Your task to perform on an android device: turn off notifications in google photos Image 0: 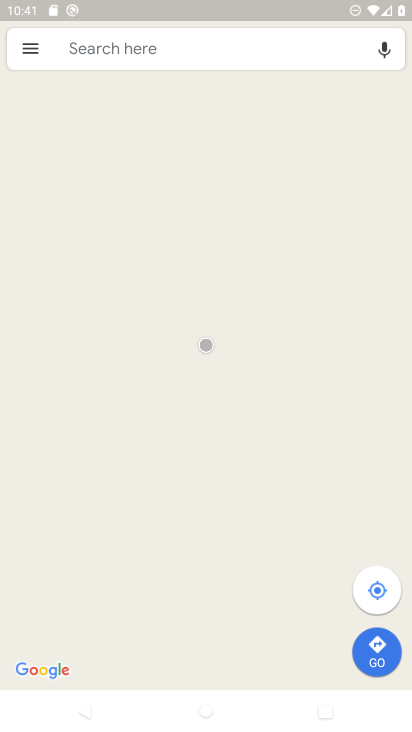
Step 0: press home button
Your task to perform on an android device: turn off notifications in google photos Image 1: 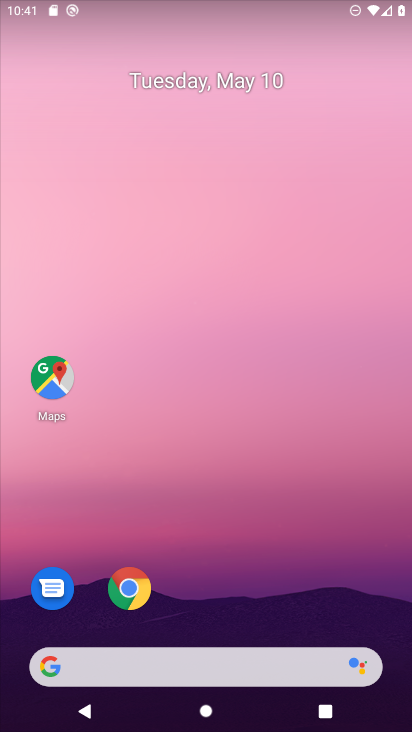
Step 1: drag from (182, 617) to (171, 163)
Your task to perform on an android device: turn off notifications in google photos Image 2: 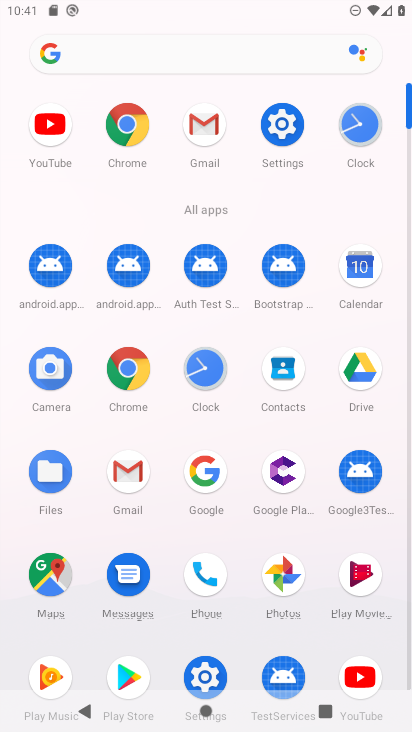
Step 2: click (276, 584)
Your task to perform on an android device: turn off notifications in google photos Image 3: 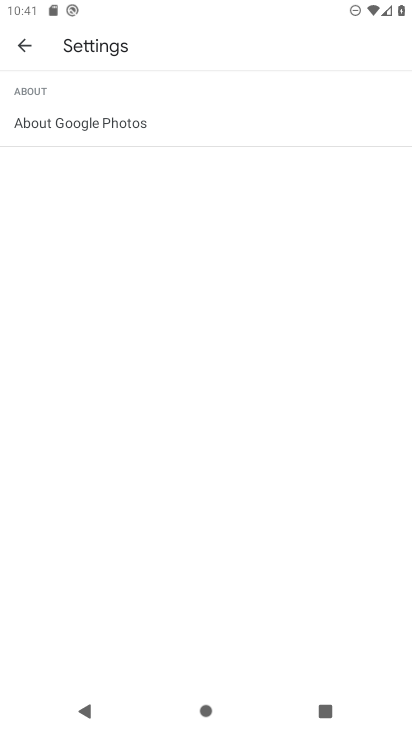
Step 3: click (28, 45)
Your task to perform on an android device: turn off notifications in google photos Image 4: 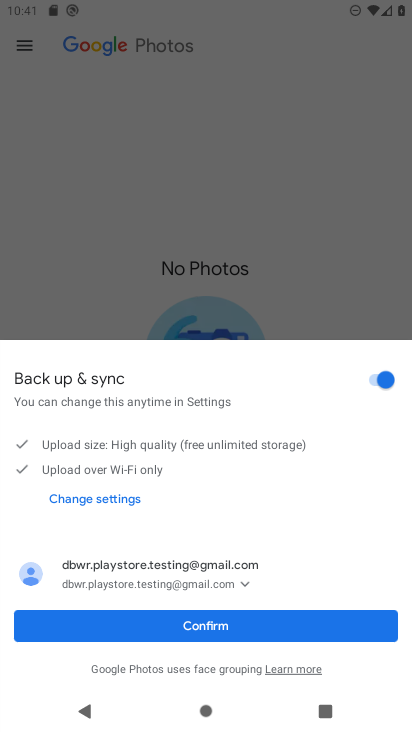
Step 4: click (227, 623)
Your task to perform on an android device: turn off notifications in google photos Image 5: 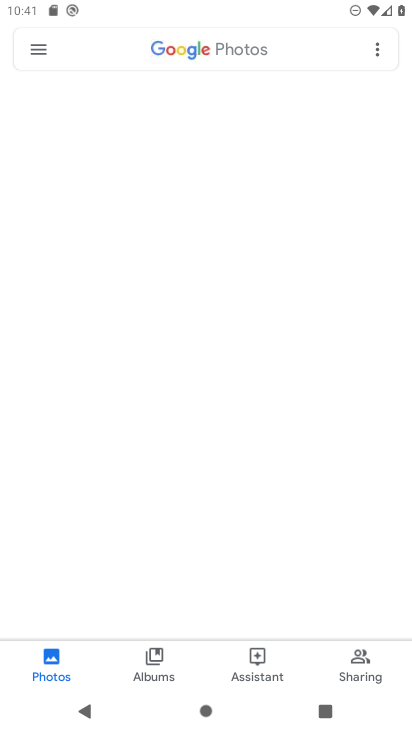
Step 5: click (36, 48)
Your task to perform on an android device: turn off notifications in google photos Image 6: 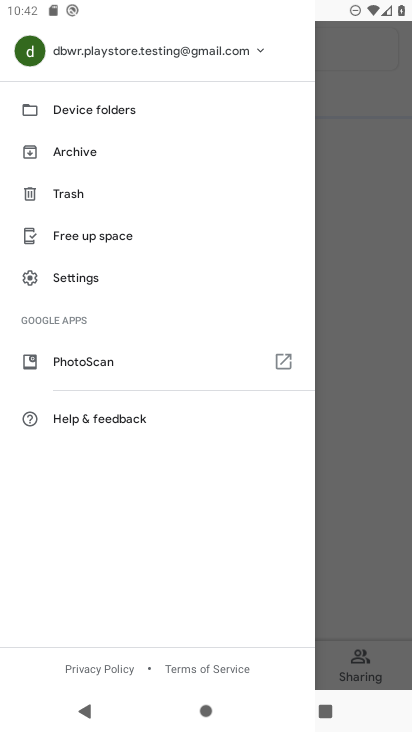
Step 6: click (81, 276)
Your task to perform on an android device: turn off notifications in google photos Image 7: 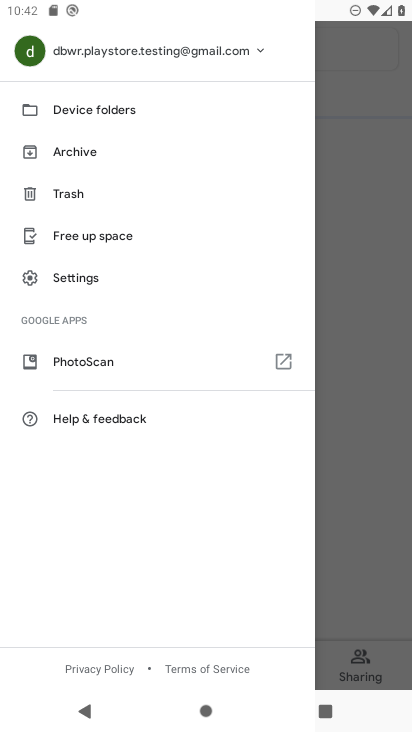
Step 7: click (52, 280)
Your task to perform on an android device: turn off notifications in google photos Image 8: 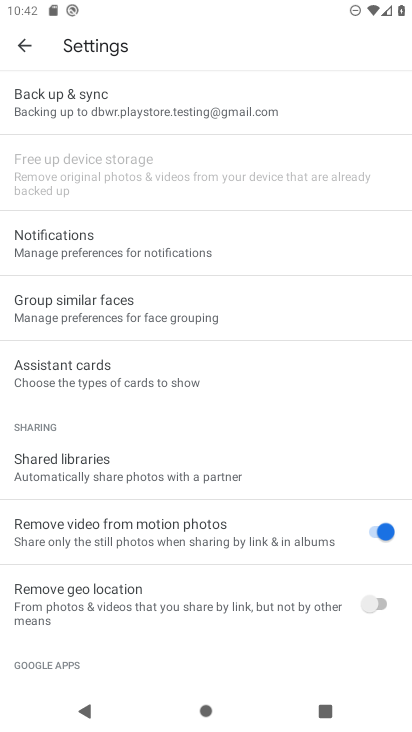
Step 8: drag from (173, 591) to (232, 205)
Your task to perform on an android device: turn off notifications in google photos Image 9: 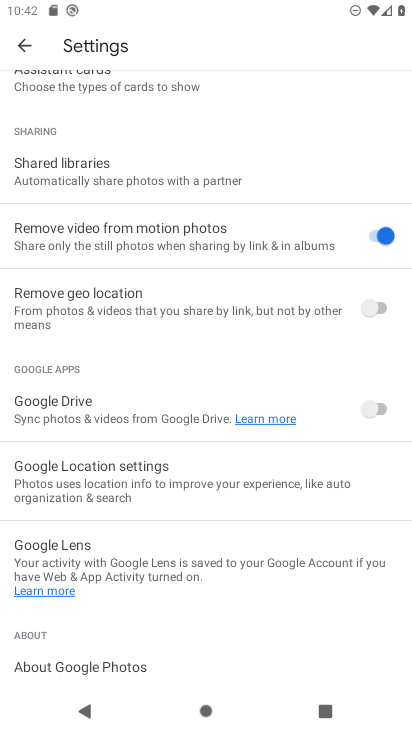
Step 9: drag from (227, 608) to (229, 230)
Your task to perform on an android device: turn off notifications in google photos Image 10: 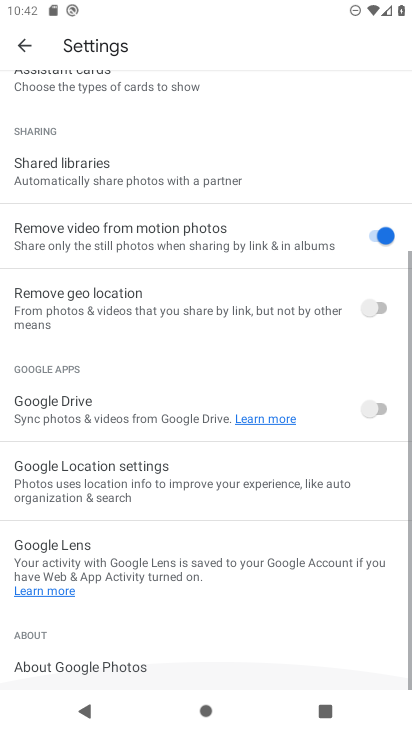
Step 10: drag from (239, 210) to (224, 603)
Your task to perform on an android device: turn off notifications in google photos Image 11: 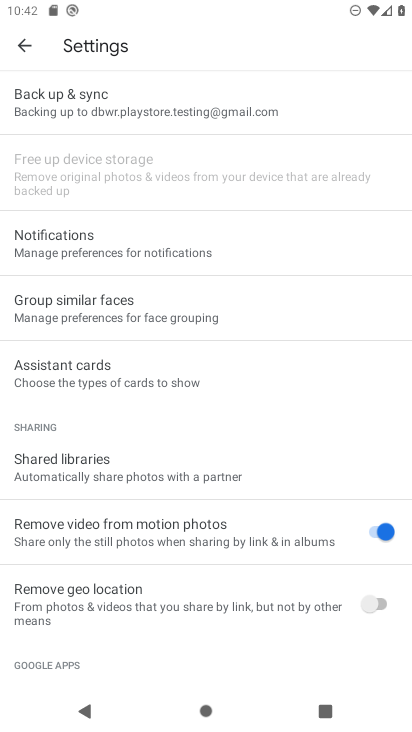
Step 11: drag from (252, 240) to (252, 399)
Your task to perform on an android device: turn off notifications in google photos Image 12: 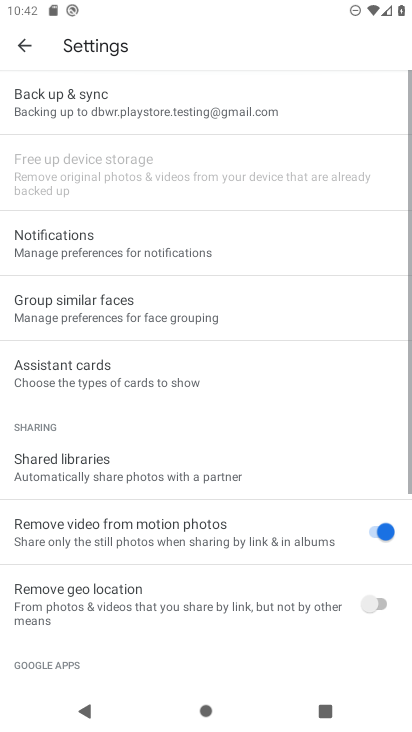
Step 12: click (144, 247)
Your task to perform on an android device: turn off notifications in google photos Image 13: 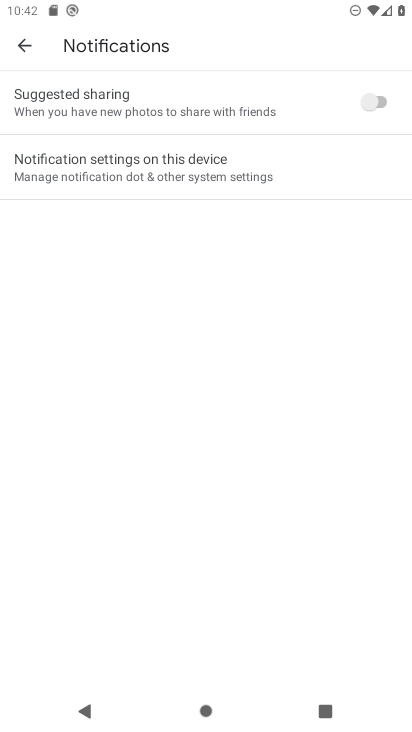
Step 13: click (117, 180)
Your task to perform on an android device: turn off notifications in google photos Image 14: 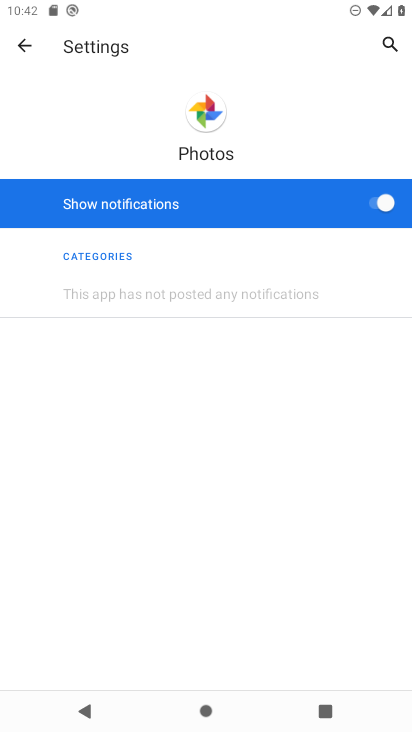
Step 14: click (375, 211)
Your task to perform on an android device: turn off notifications in google photos Image 15: 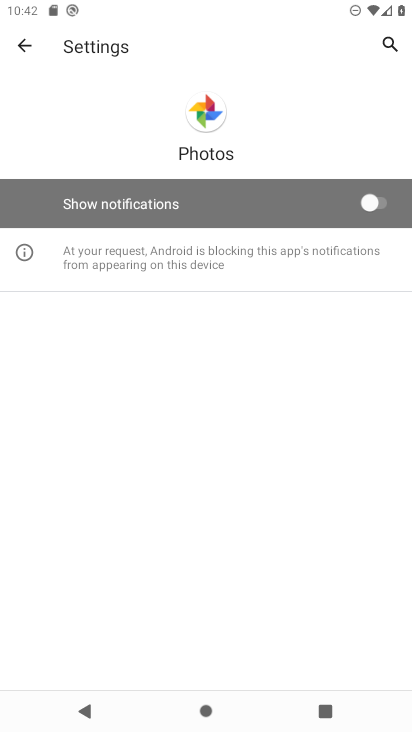
Step 15: task complete